Your task to perform on an android device: open app "Google Play services" Image 0: 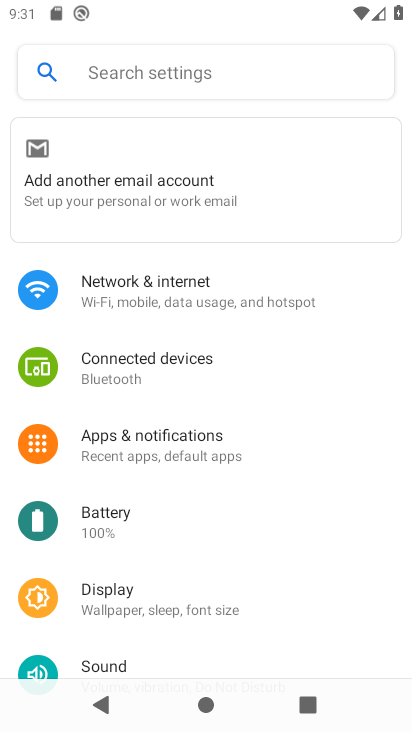
Step 0: press home button
Your task to perform on an android device: open app "Google Play services" Image 1: 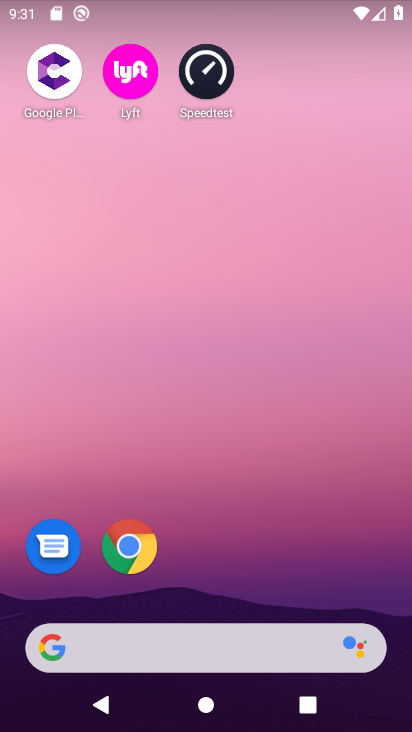
Step 1: drag from (213, 593) to (245, 11)
Your task to perform on an android device: open app "Google Play services" Image 2: 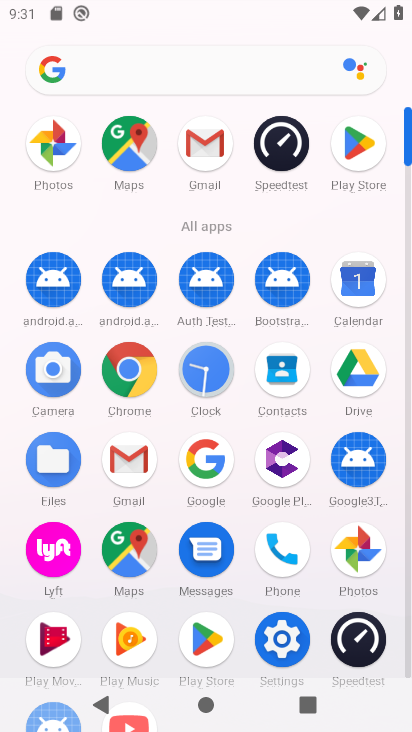
Step 2: click (356, 136)
Your task to perform on an android device: open app "Google Play services" Image 3: 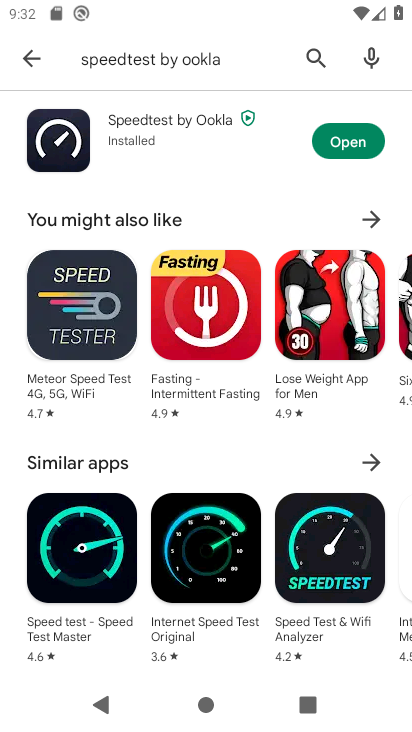
Step 3: click (305, 48)
Your task to perform on an android device: open app "Google Play services" Image 4: 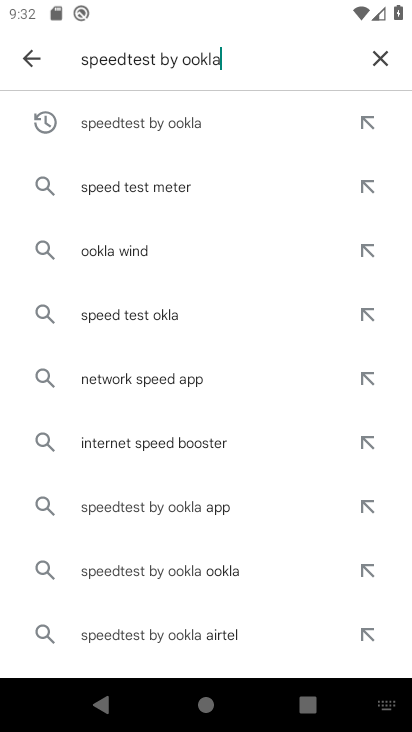
Step 4: click (389, 63)
Your task to perform on an android device: open app "Google Play services" Image 5: 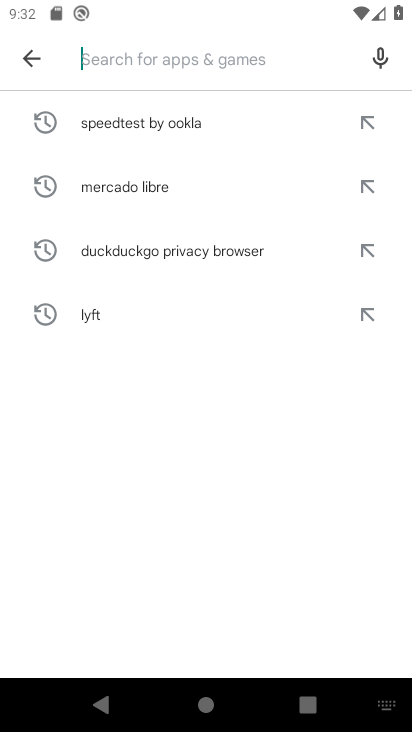
Step 5: type "Google Play services"
Your task to perform on an android device: open app "Google Play services" Image 6: 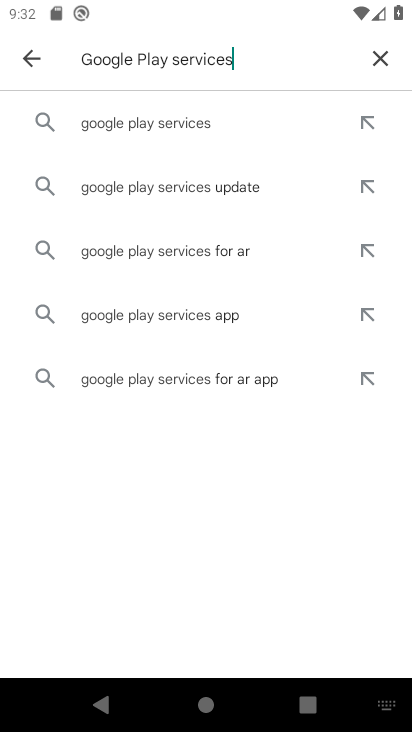
Step 6: click (219, 121)
Your task to perform on an android device: open app "Google Play services" Image 7: 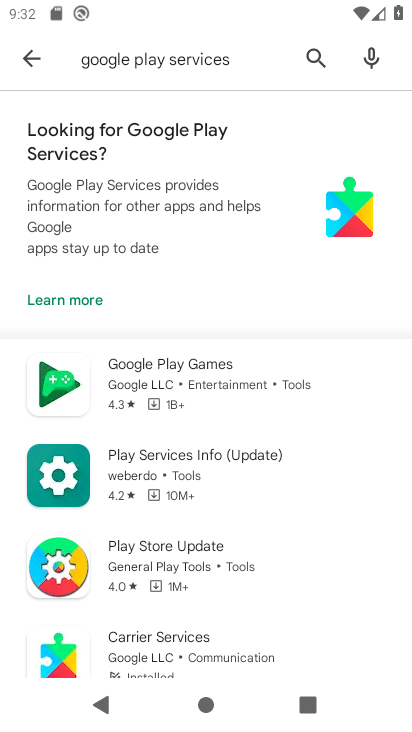
Step 7: task complete